Your task to perform on an android device: allow cookies in the chrome app Image 0: 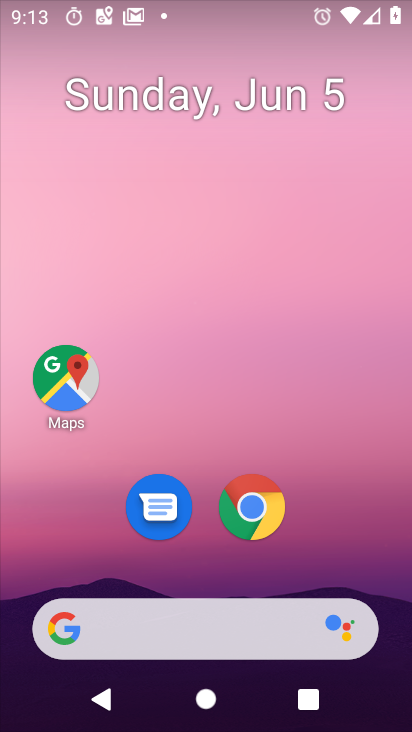
Step 0: press home button
Your task to perform on an android device: allow cookies in the chrome app Image 1: 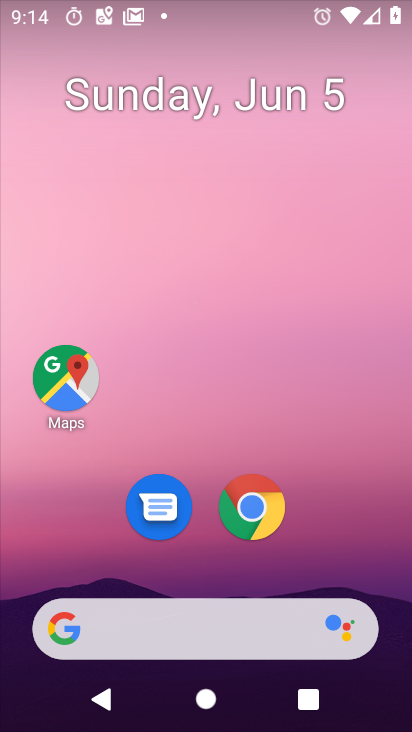
Step 1: drag from (261, 683) to (263, 201)
Your task to perform on an android device: allow cookies in the chrome app Image 2: 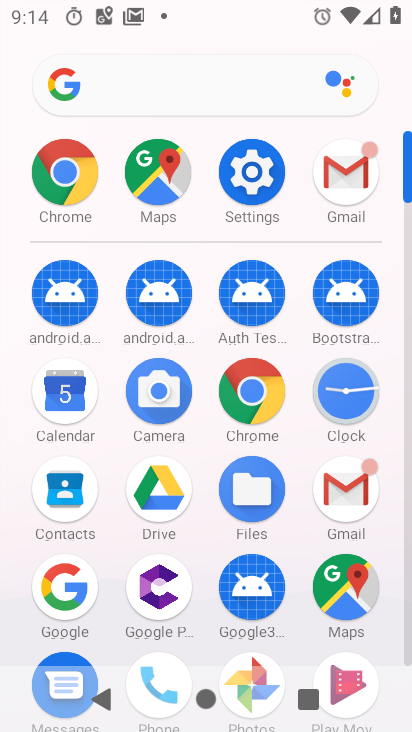
Step 2: click (75, 192)
Your task to perform on an android device: allow cookies in the chrome app Image 3: 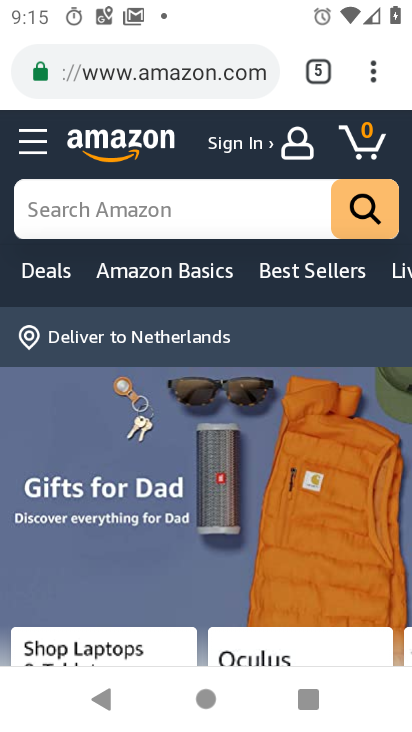
Step 3: click (381, 95)
Your task to perform on an android device: allow cookies in the chrome app Image 4: 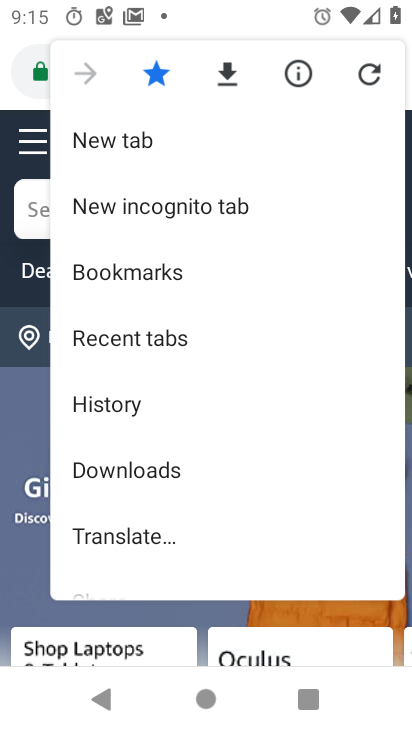
Step 4: drag from (277, 381) to (292, 213)
Your task to perform on an android device: allow cookies in the chrome app Image 5: 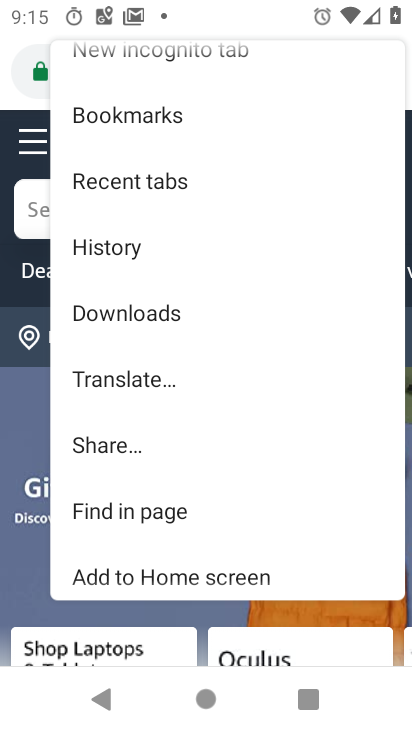
Step 5: drag from (196, 501) to (235, 365)
Your task to perform on an android device: allow cookies in the chrome app Image 6: 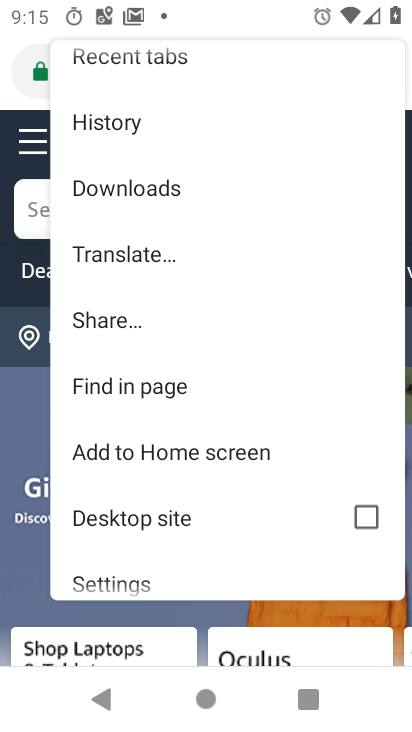
Step 6: click (143, 582)
Your task to perform on an android device: allow cookies in the chrome app Image 7: 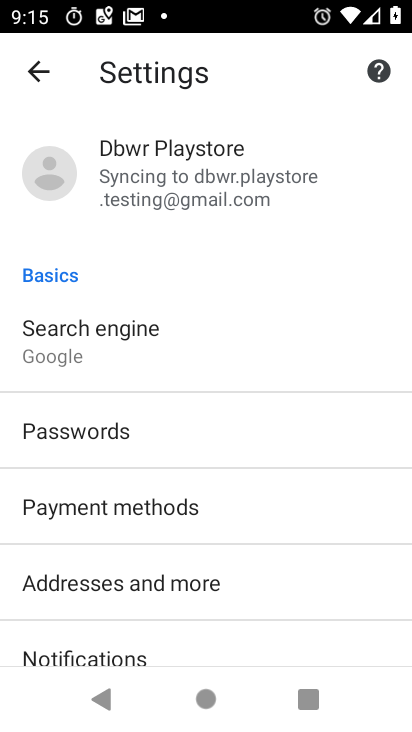
Step 7: drag from (136, 603) to (154, 356)
Your task to perform on an android device: allow cookies in the chrome app Image 8: 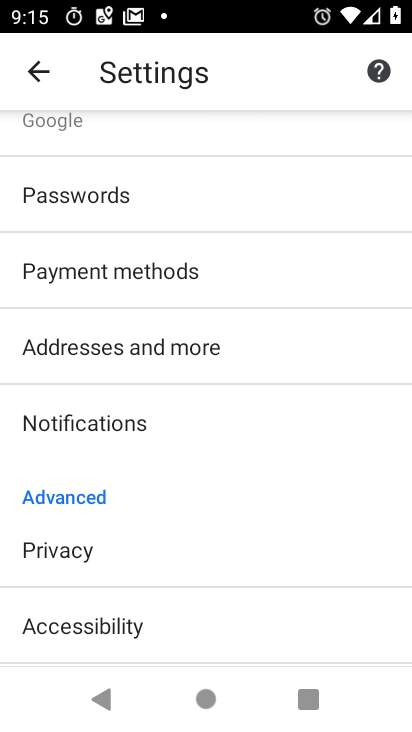
Step 8: drag from (114, 570) to (155, 405)
Your task to perform on an android device: allow cookies in the chrome app Image 9: 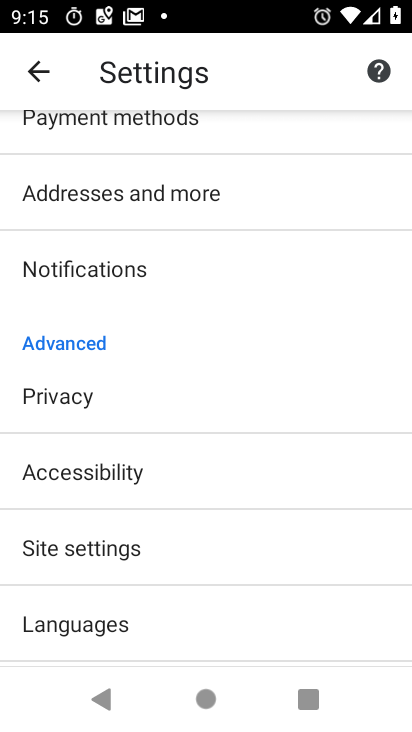
Step 9: click (114, 547)
Your task to perform on an android device: allow cookies in the chrome app Image 10: 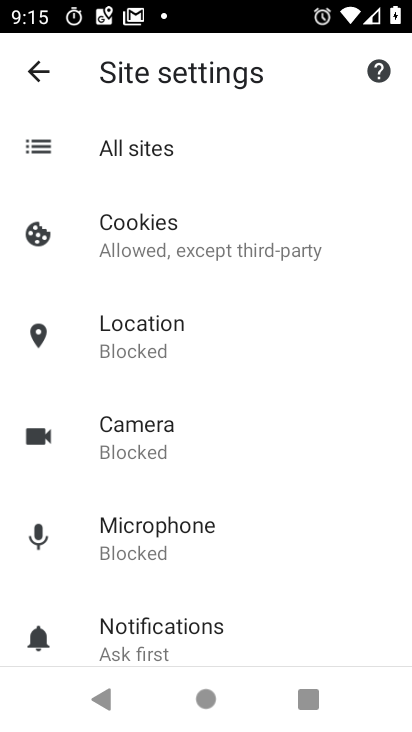
Step 10: click (164, 239)
Your task to perform on an android device: allow cookies in the chrome app Image 11: 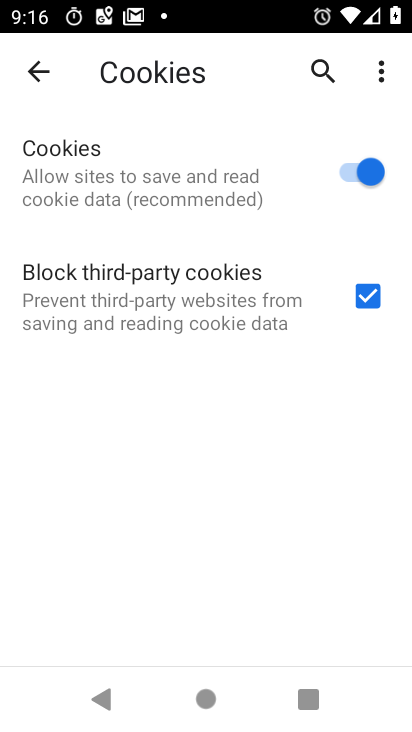
Step 11: task complete